Your task to perform on an android device: manage bookmarks in the chrome app Image 0: 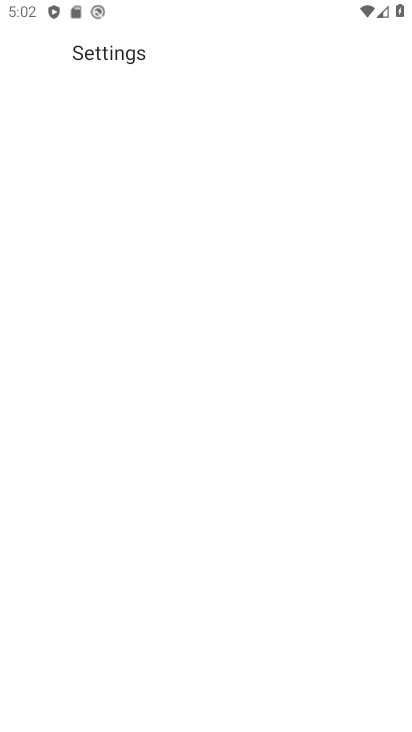
Step 0: drag from (295, 567) to (314, 401)
Your task to perform on an android device: manage bookmarks in the chrome app Image 1: 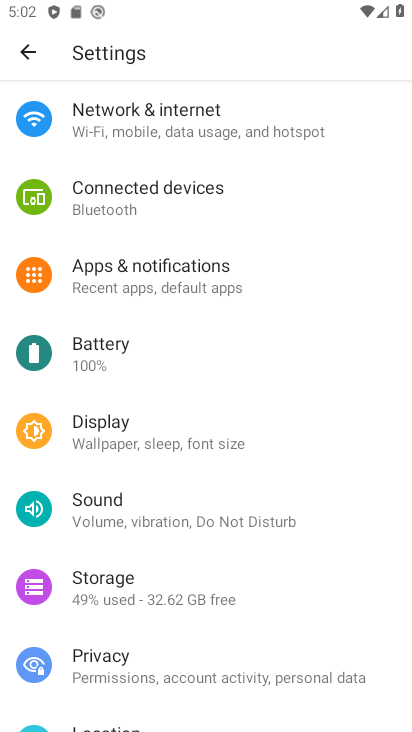
Step 1: press home button
Your task to perform on an android device: manage bookmarks in the chrome app Image 2: 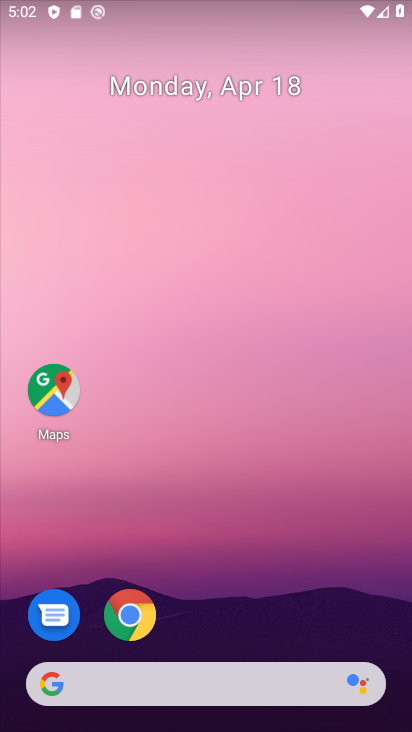
Step 2: click (119, 611)
Your task to perform on an android device: manage bookmarks in the chrome app Image 3: 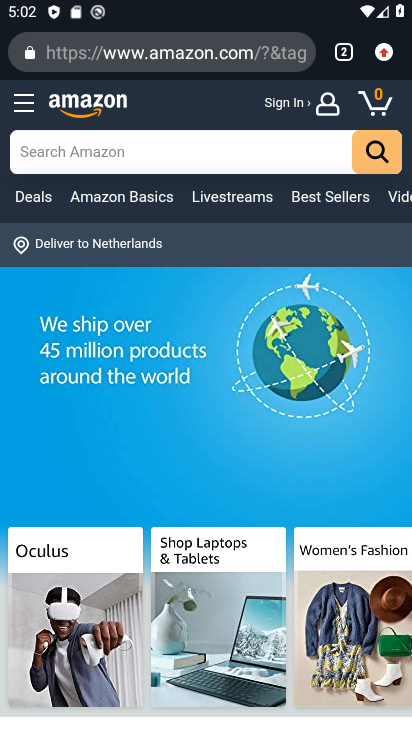
Step 3: click (347, 51)
Your task to perform on an android device: manage bookmarks in the chrome app Image 4: 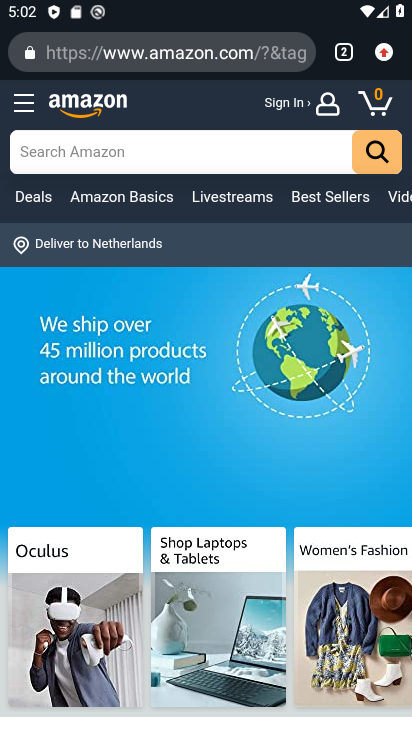
Step 4: click (347, 51)
Your task to perform on an android device: manage bookmarks in the chrome app Image 5: 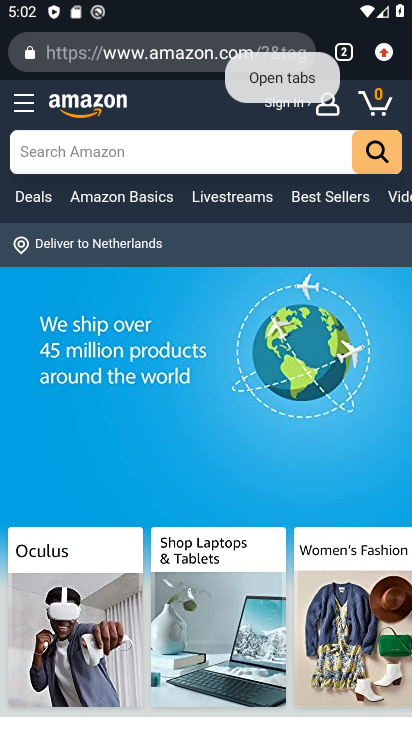
Step 5: drag from (379, 45) to (228, 274)
Your task to perform on an android device: manage bookmarks in the chrome app Image 6: 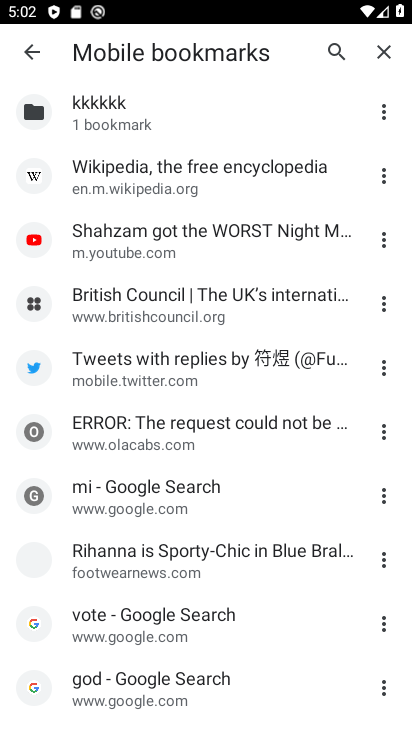
Step 6: drag from (226, 280) to (205, 539)
Your task to perform on an android device: manage bookmarks in the chrome app Image 7: 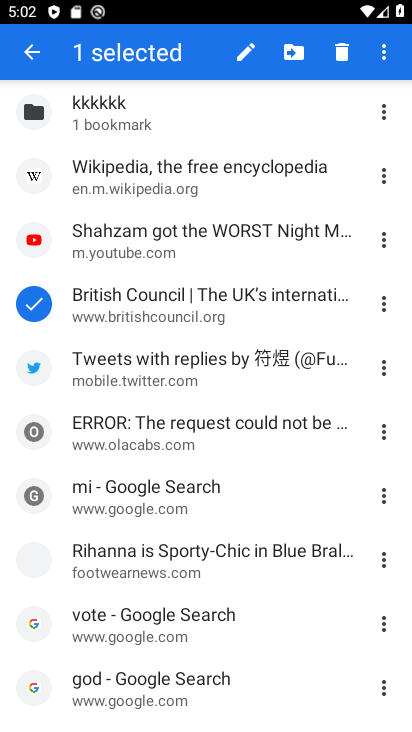
Step 7: click (244, 52)
Your task to perform on an android device: manage bookmarks in the chrome app Image 8: 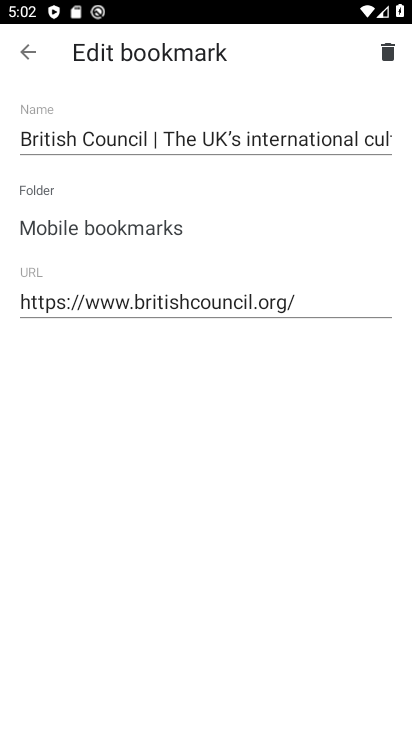
Step 8: click (35, 52)
Your task to perform on an android device: manage bookmarks in the chrome app Image 9: 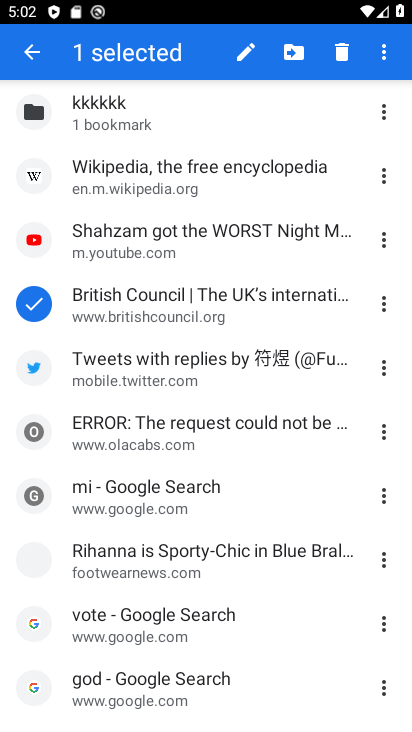
Step 9: click (35, 52)
Your task to perform on an android device: manage bookmarks in the chrome app Image 10: 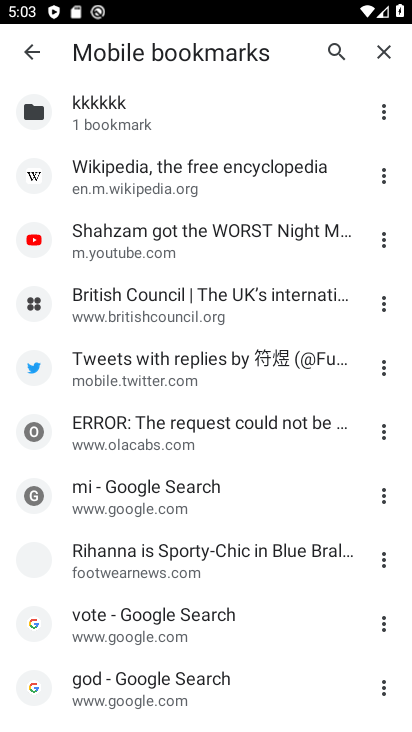
Step 10: task complete